Your task to perform on an android device: open app "VLC for Android" (install if not already installed) Image 0: 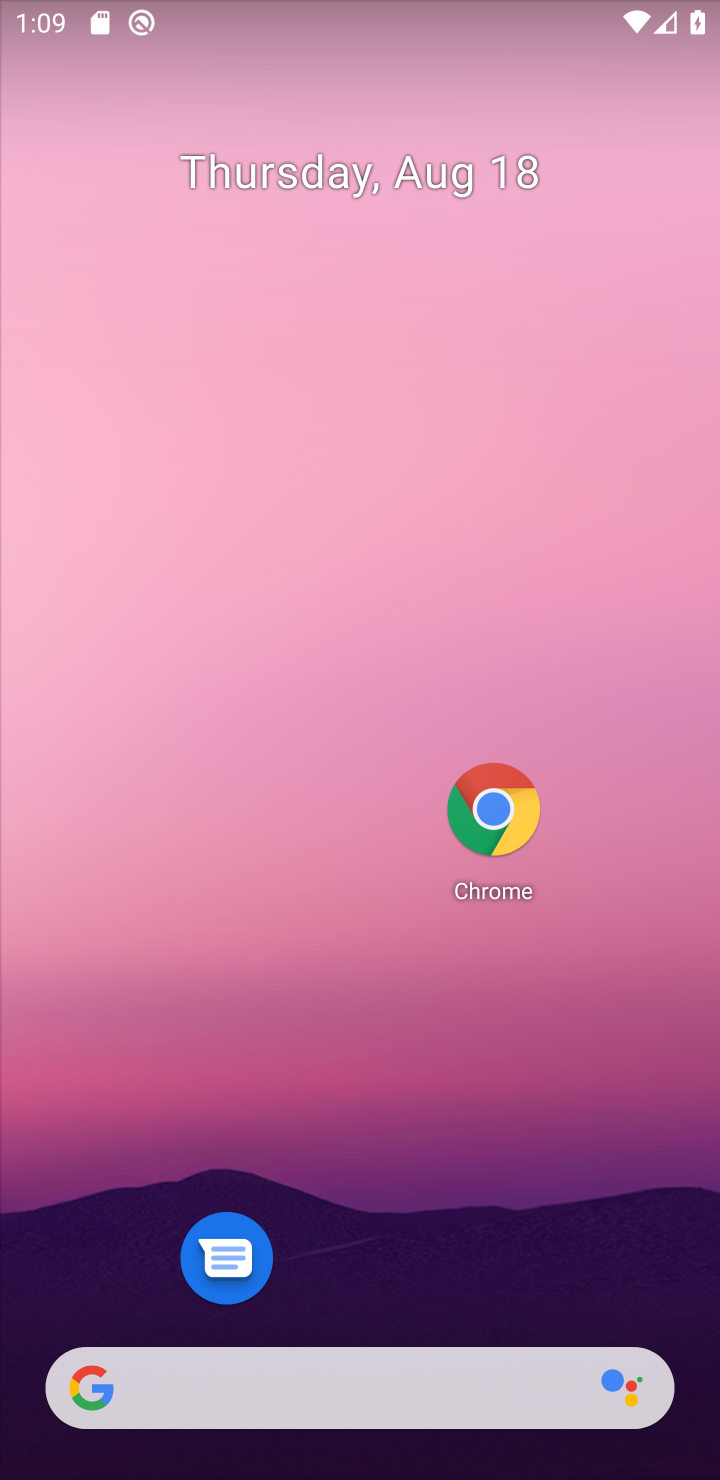
Step 0: drag from (400, 1226) to (385, 472)
Your task to perform on an android device: open app "VLC for Android" (install if not already installed) Image 1: 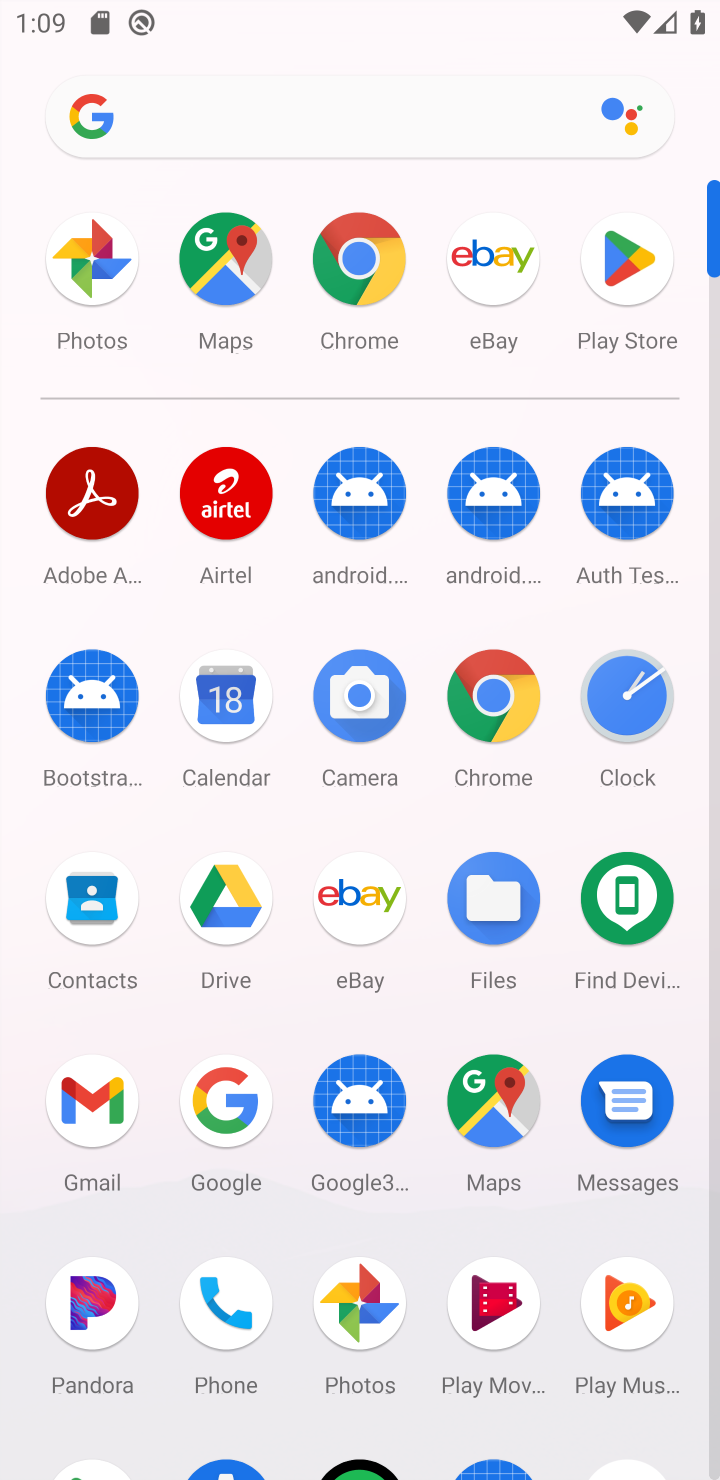
Step 1: click (630, 258)
Your task to perform on an android device: open app "VLC for Android" (install if not already installed) Image 2: 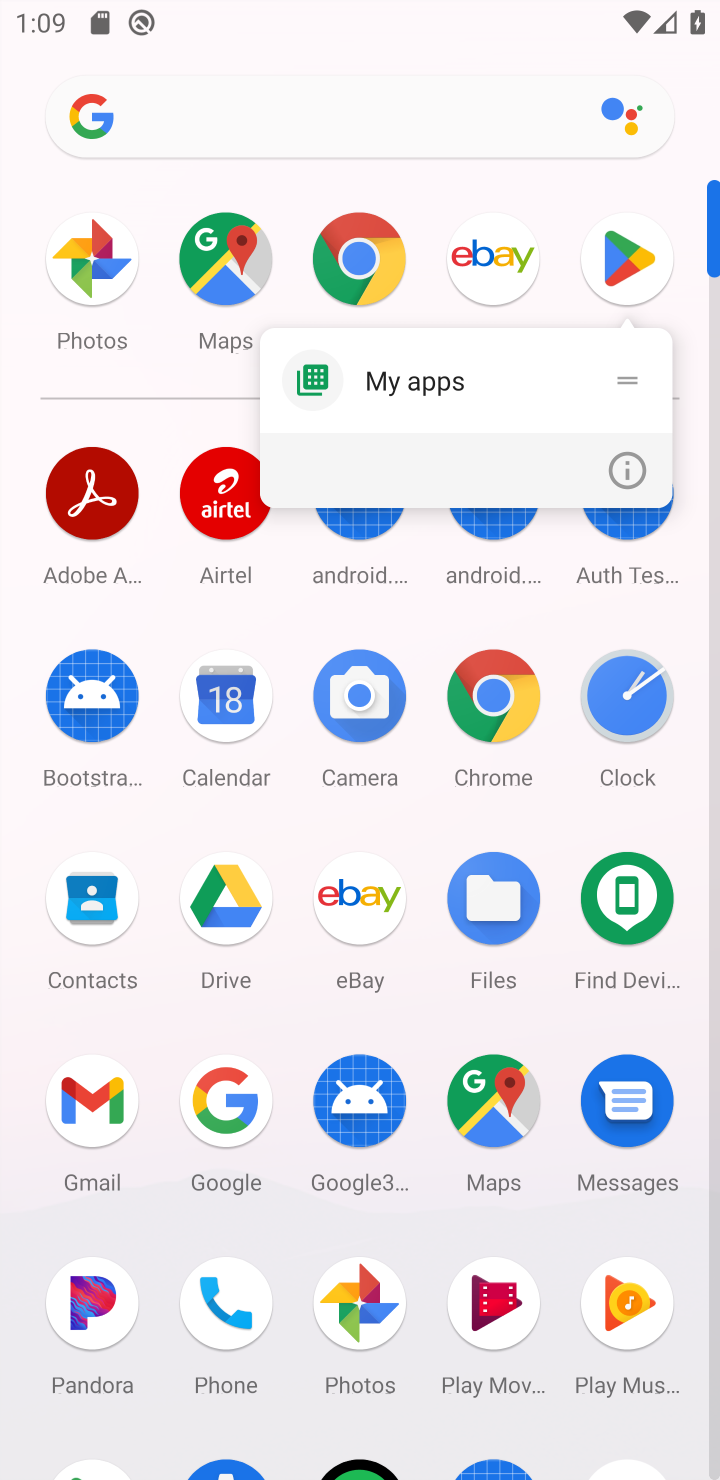
Step 2: click (630, 258)
Your task to perform on an android device: open app "VLC for Android" (install if not already installed) Image 3: 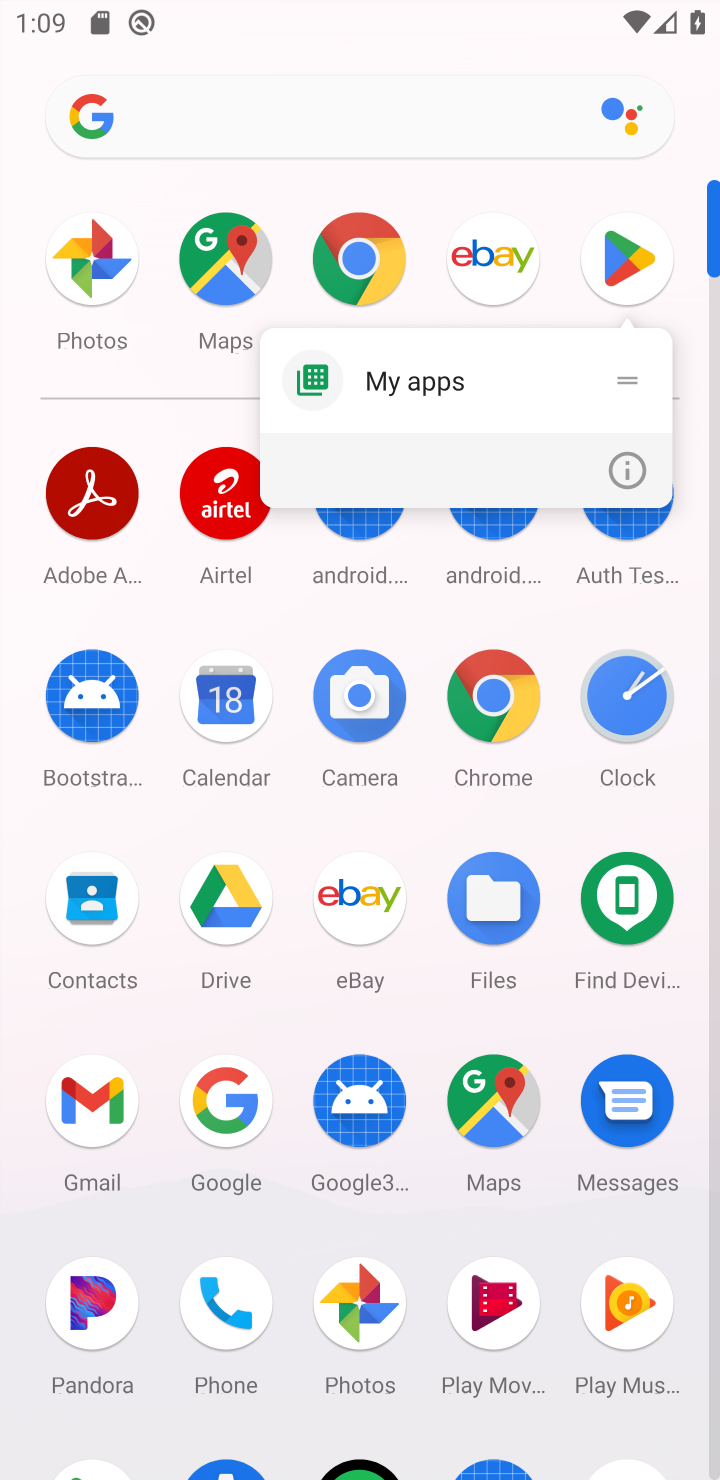
Step 3: click (624, 281)
Your task to perform on an android device: open app "VLC for Android" (install if not already installed) Image 4: 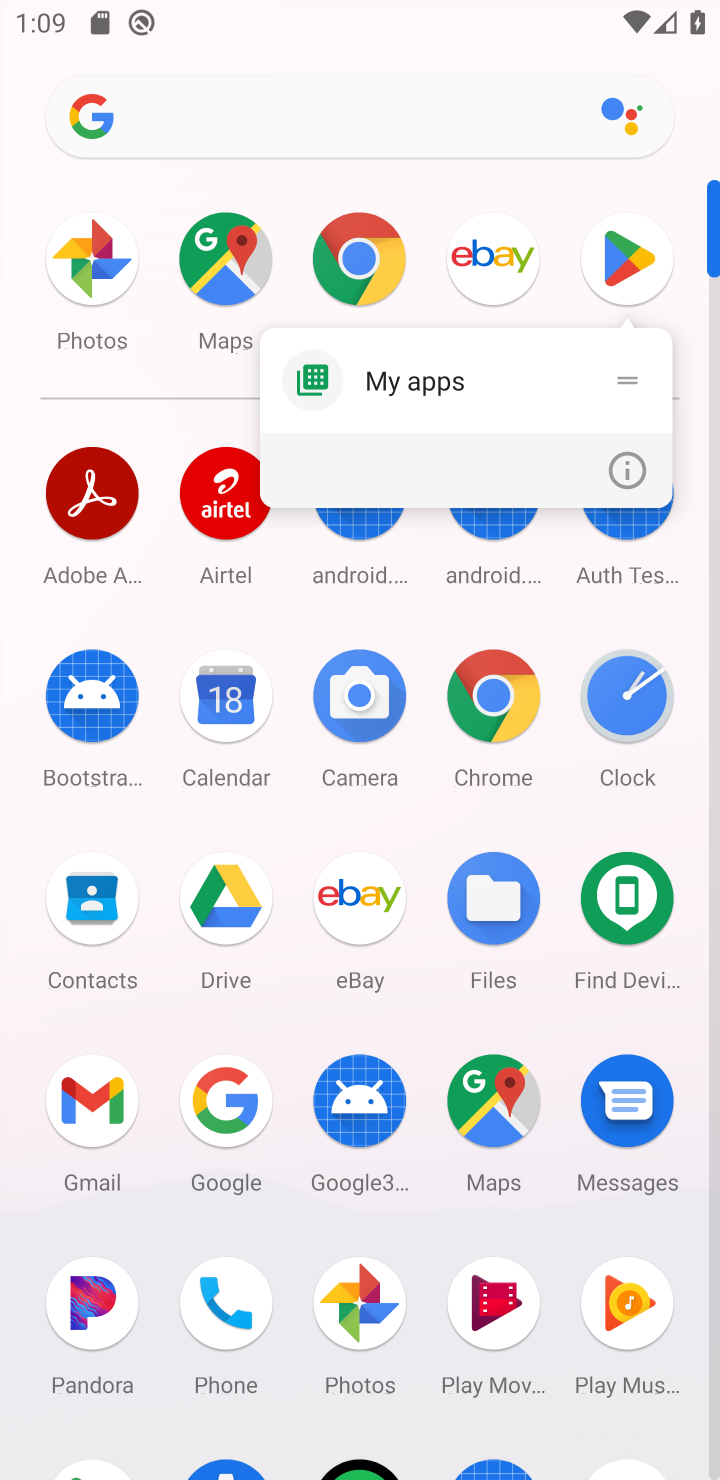
Step 4: click (624, 281)
Your task to perform on an android device: open app "VLC for Android" (install if not already installed) Image 5: 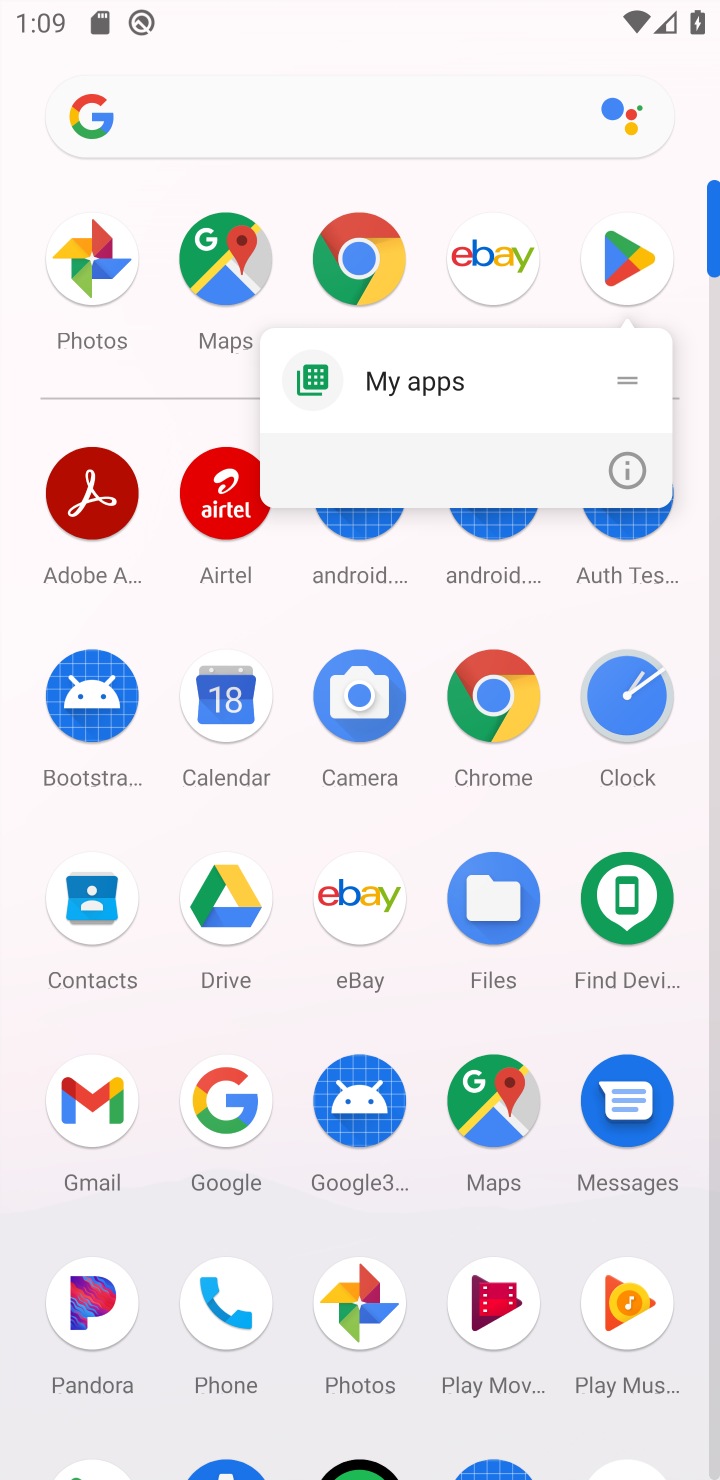
Step 5: click (624, 281)
Your task to perform on an android device: open app "VLC for Android" (install if not already installed) Image 6: 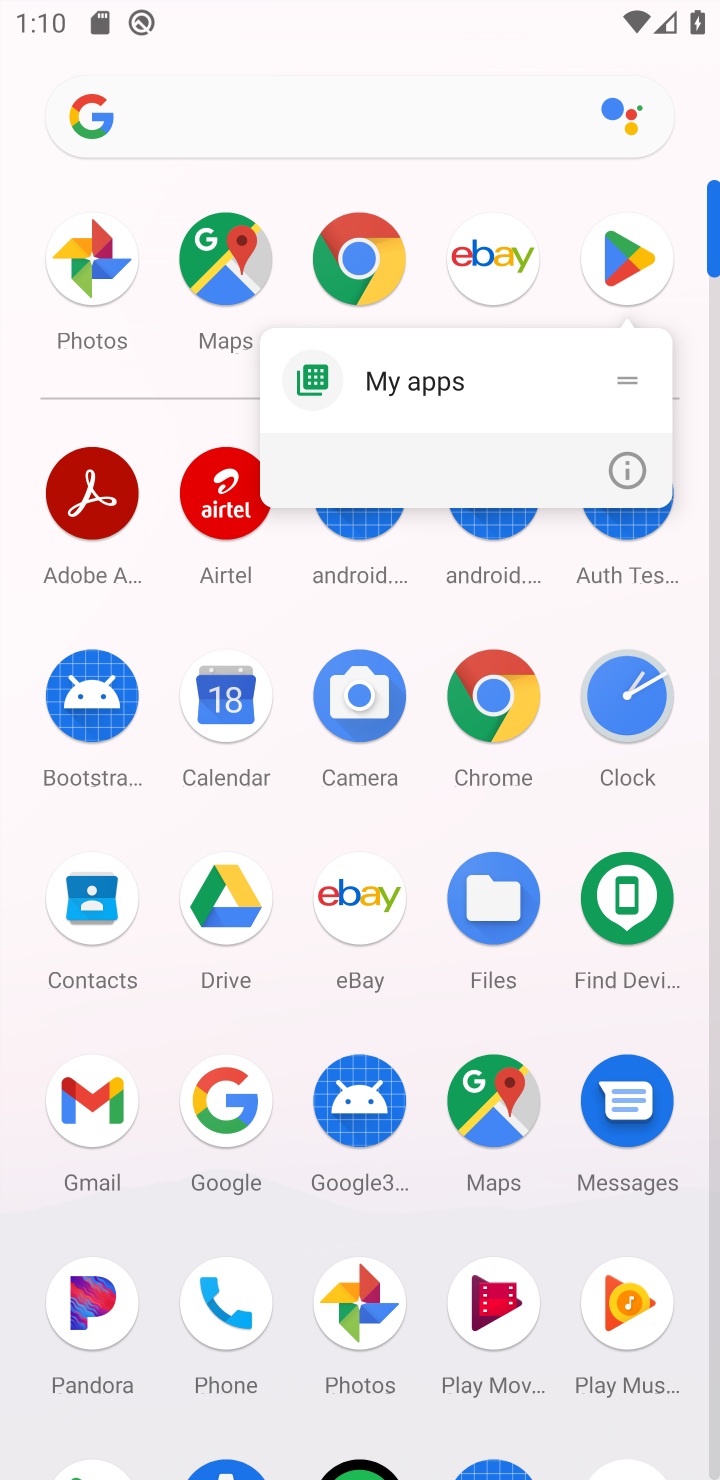
Step 6: drag from (540, 1178) to (556, 552)
Your task to perform on an android device: open app "VLC for Android" (install if not already installed) Image 7: 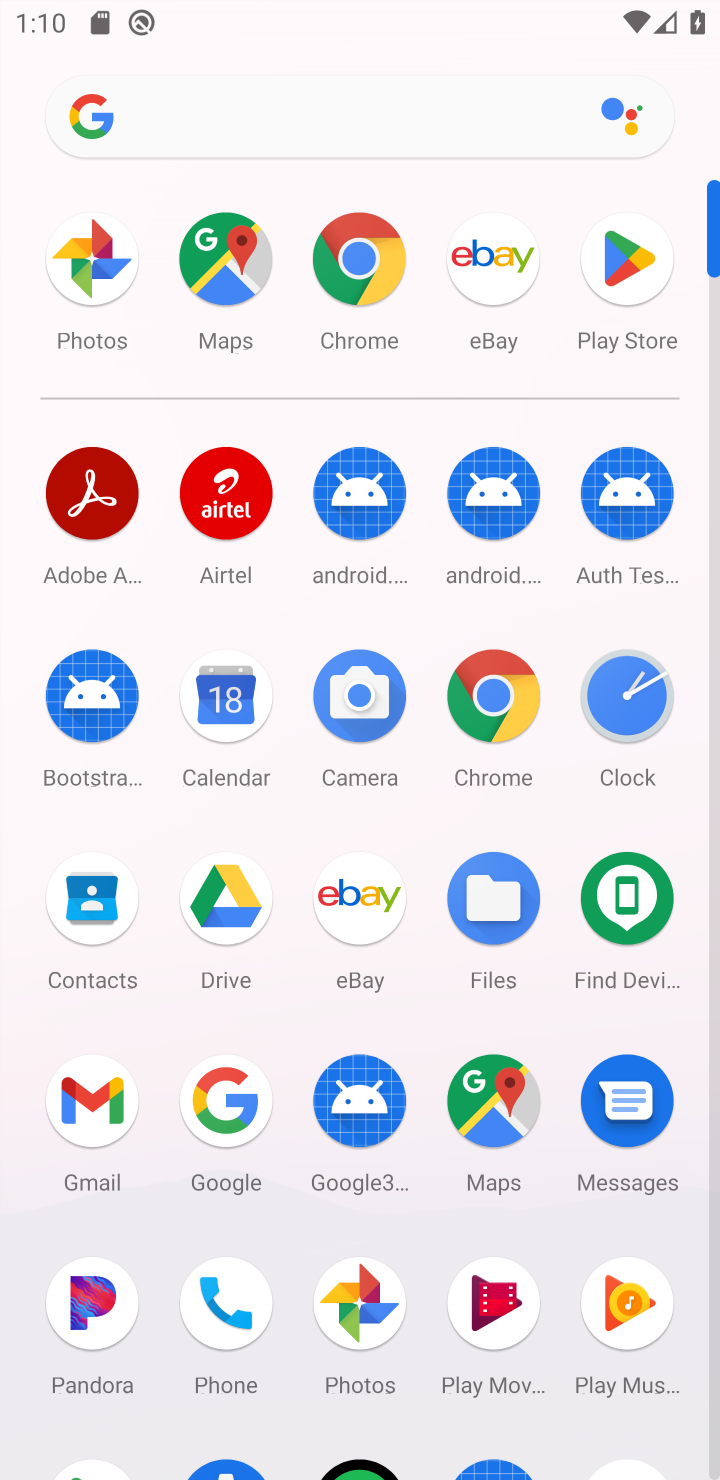
Step 7: click (622, 234)
Your task to perform on an android device: open app "VLC for Android" (install if not already installed) Image 8: 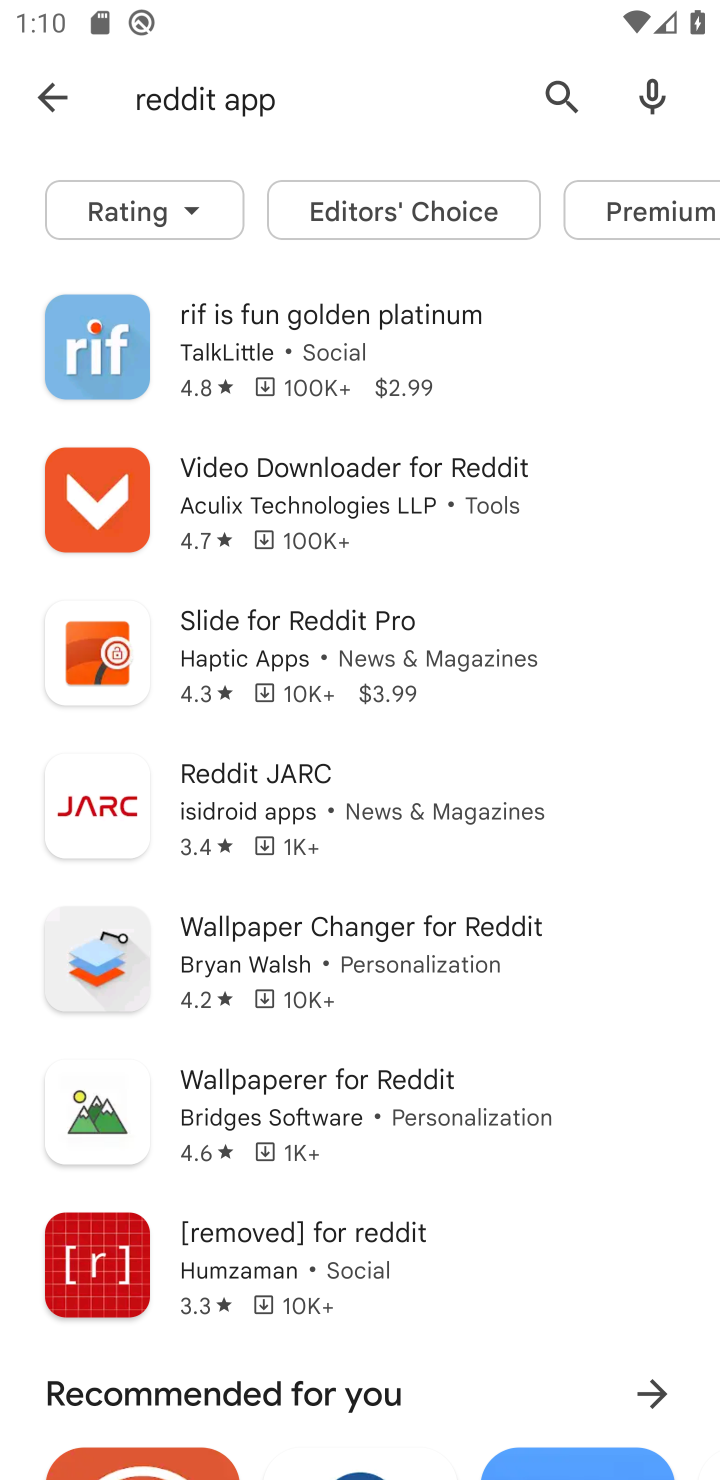
Step 8: click (42, 85)
Your task to perform on an android device: open app "VLC for Android" (install if not already installed) Image 9: 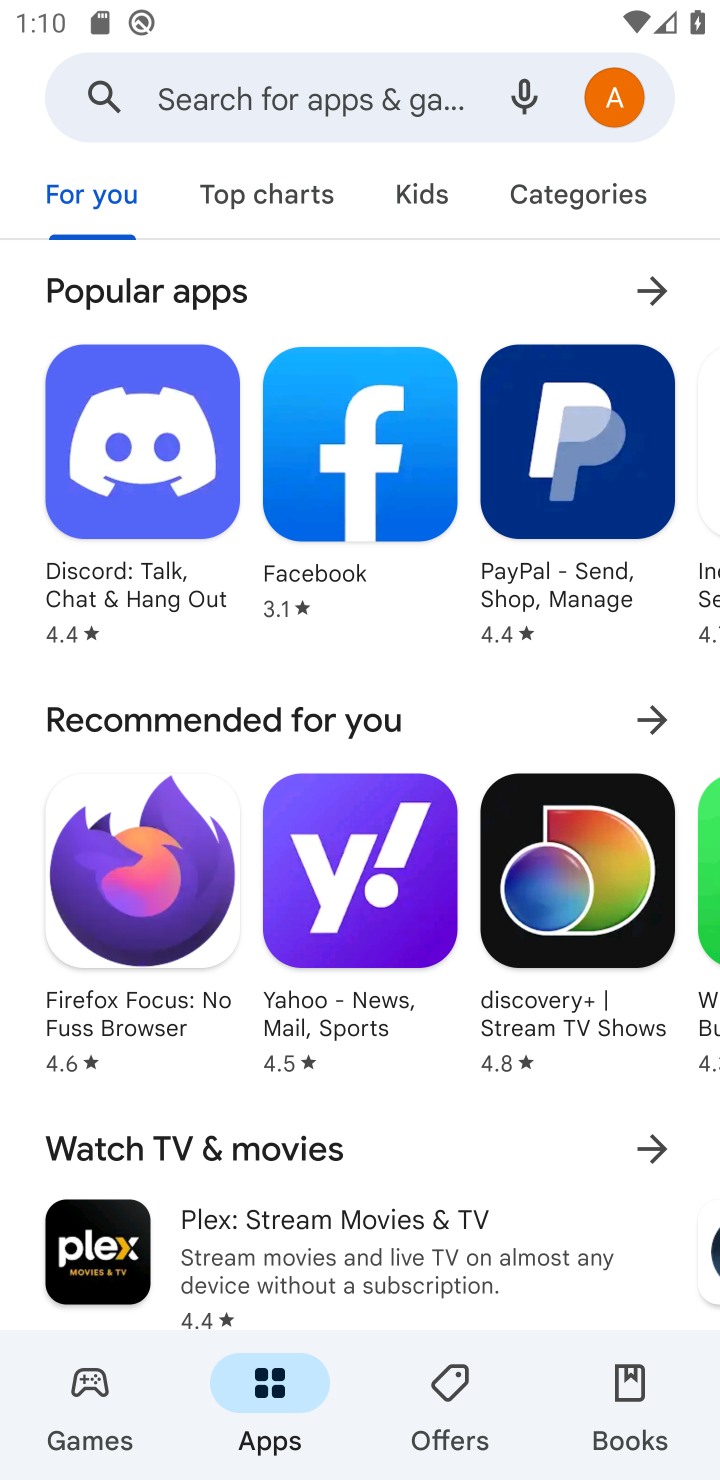
Step 9: click (371, 72)
Your task to perform on an android device: open app "VLC for Android" (install if not already installed) Image 10: 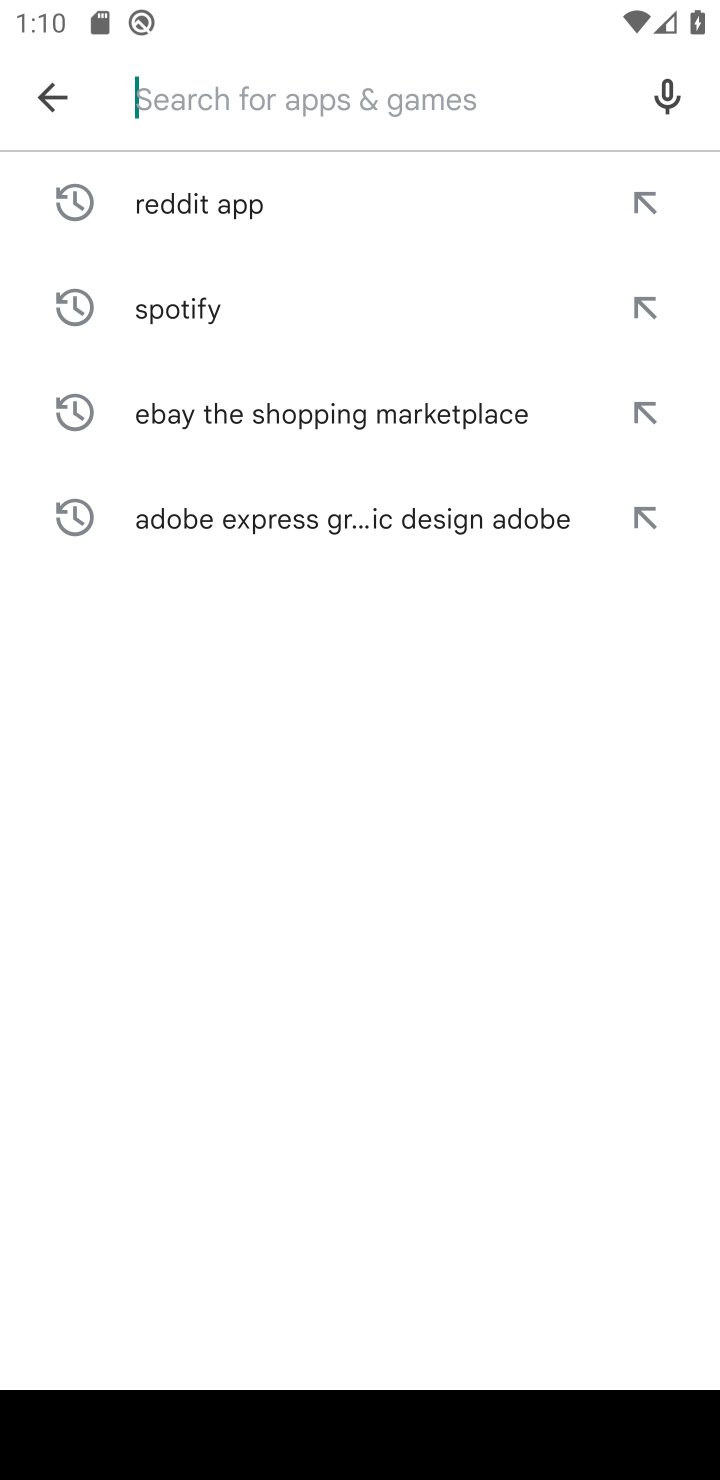
Step 10: type "VLC for Android "
Your task to perform on an android device: open app "VLC for Android" (install if not already installed) Image 11: 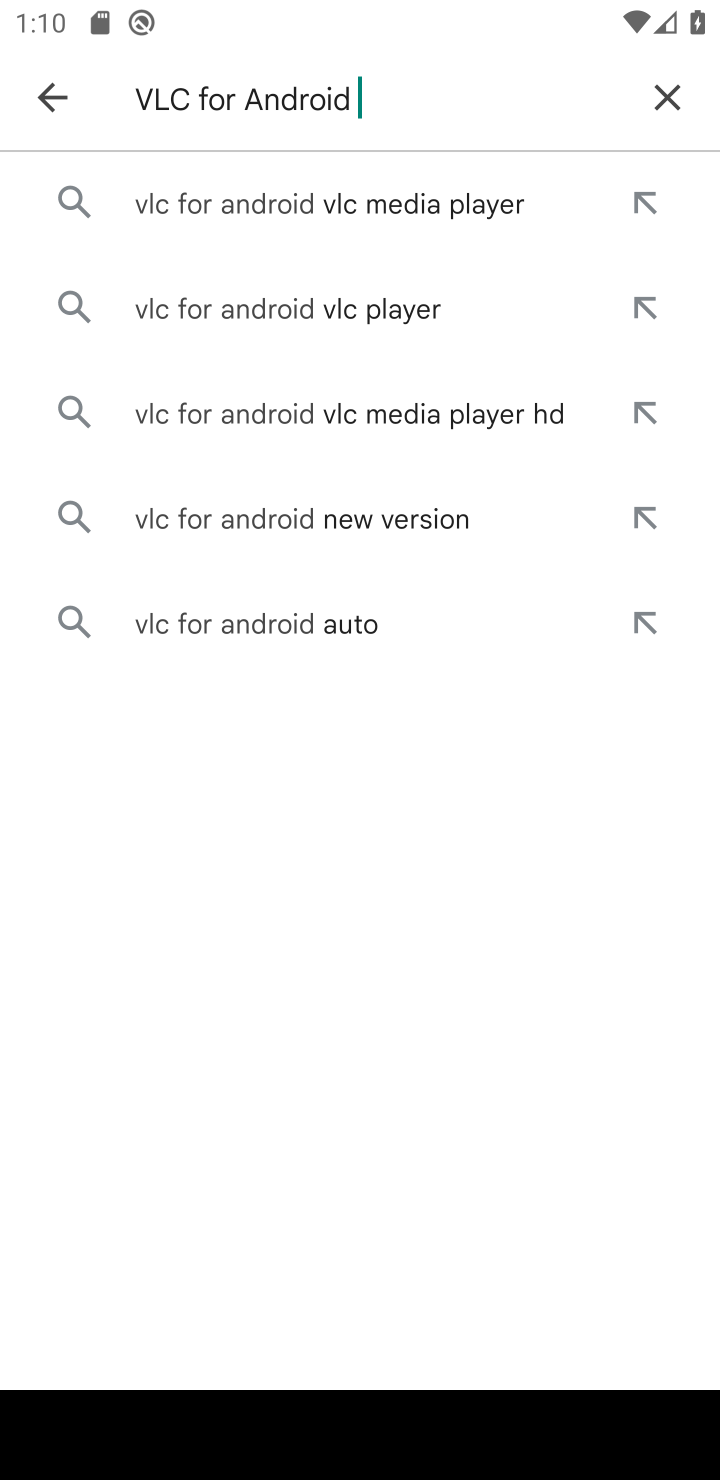
Step 11: click (207, 211)
Your task to perform on an android device: open app "VLC for Android" (install if not already installed) Image 12: 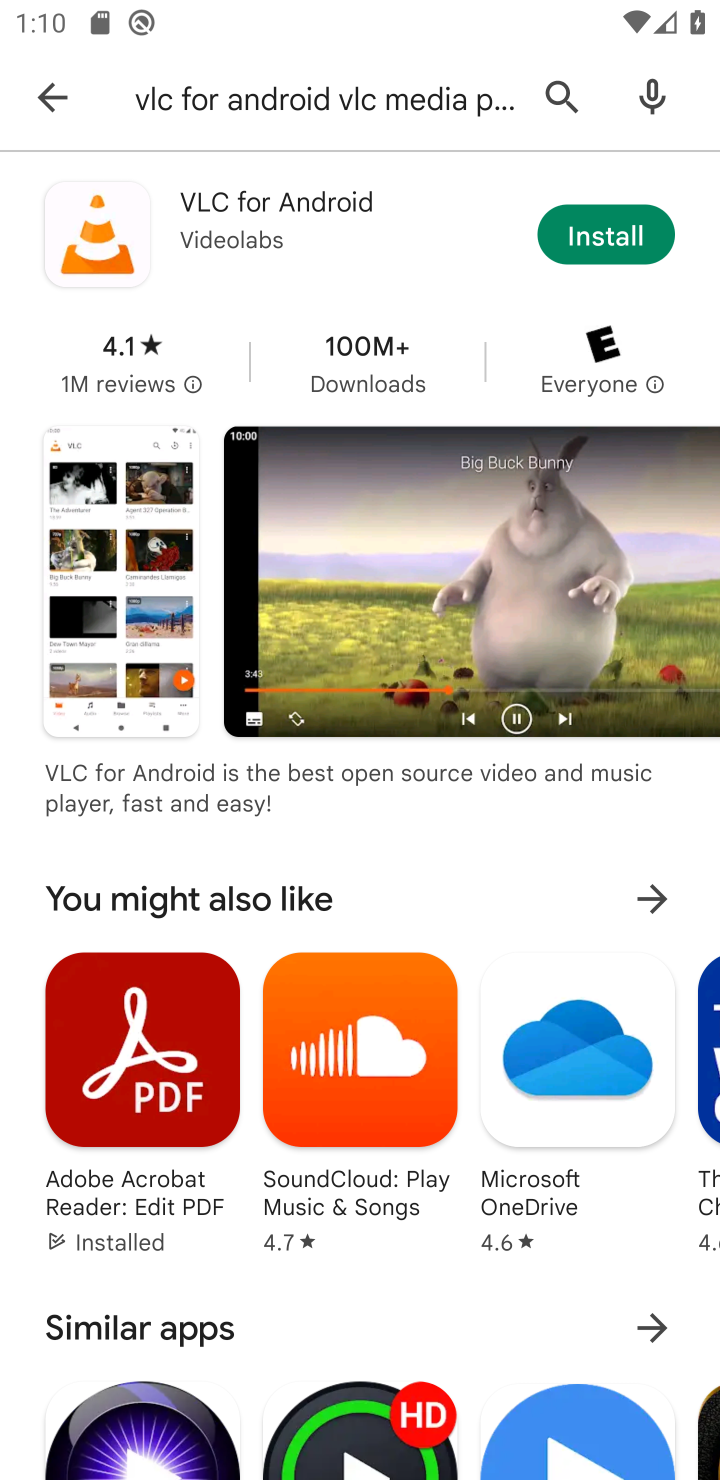
Step 12: click (636, 230)
Your task to perform on an android device: open app "VLC for Android" (install if not already installed) Image 13: 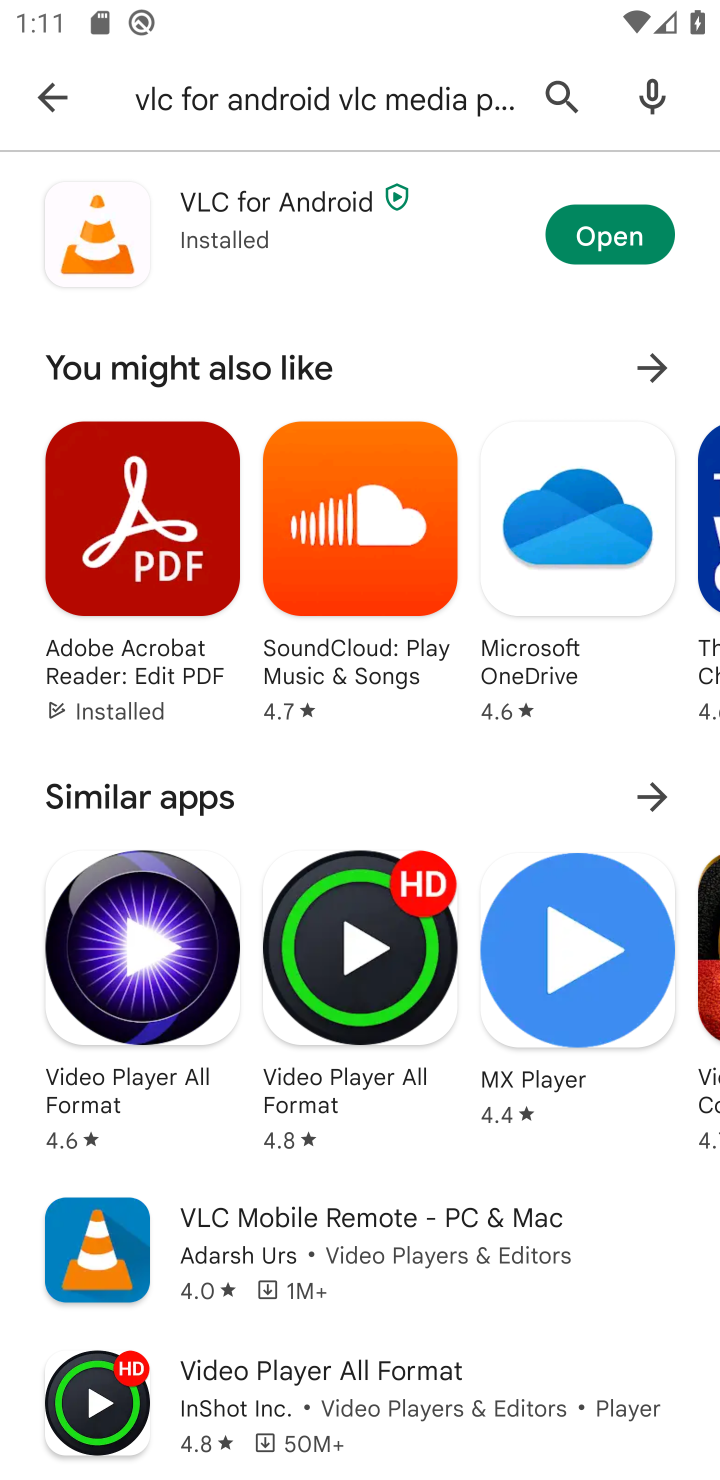
Step 13: click (599, 234)
Your task to perform on an android device: open app "VLC for Android" (install if not already installed) Image 14: 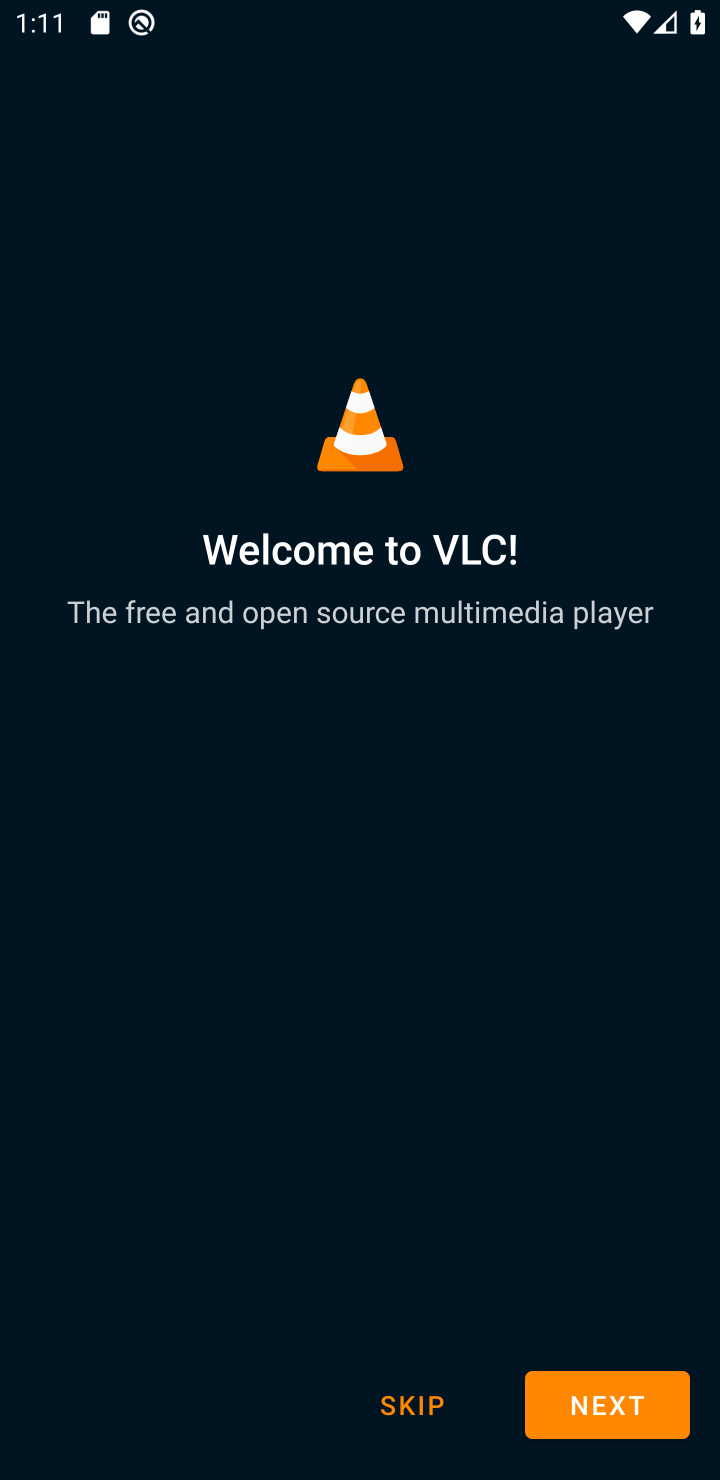
Step 14: task complete